Your task to perform on an android device: empty trash in google photos Image 0: 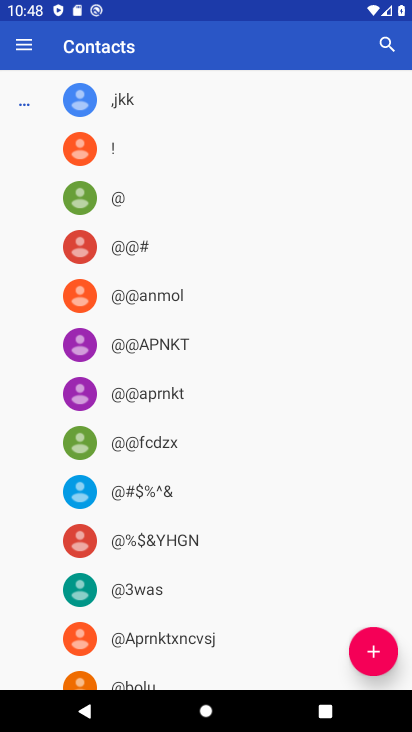
Step 0: press home button
Your task to perform on an android device: empty trash in google photos Image 1: 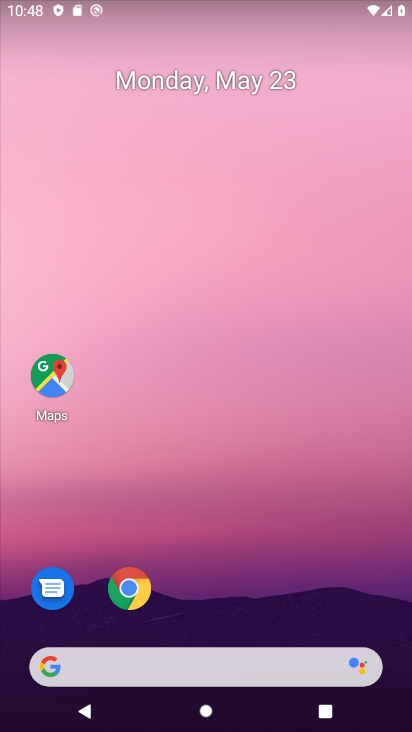
Step 1: drag from (178, 582) to (256, 25)
Your task to perform on an android device: empty trash in google photos Image 2: 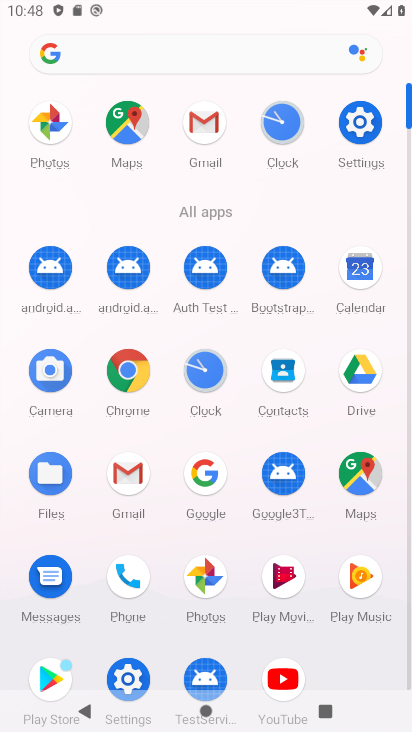
Step 2: click (133, 478)
Your task to perform on an android device: empty trash in google photos Image 3: 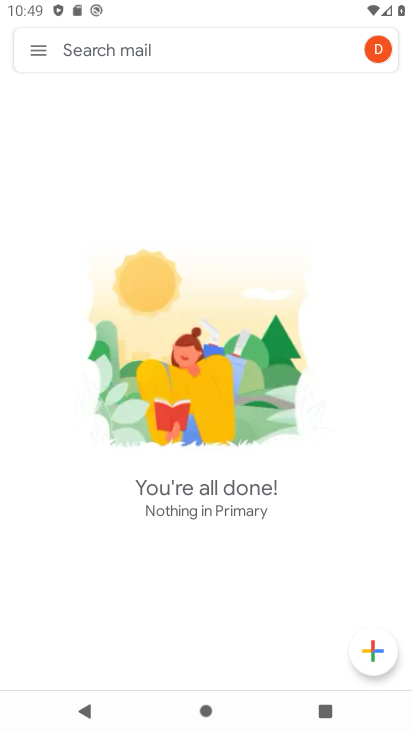
Step 3: click (20, 44)
Your task to perform on an android device: empty trash in google photos Image 4: 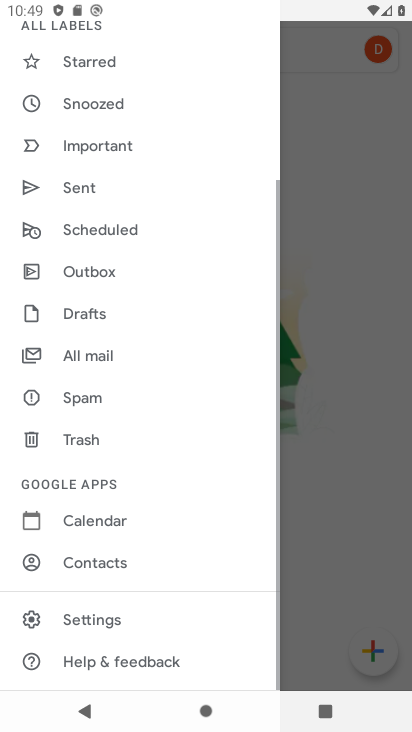
Step 4: click (136, 584)
Your task to perform on an android device: empty trash in google photos Image 5: 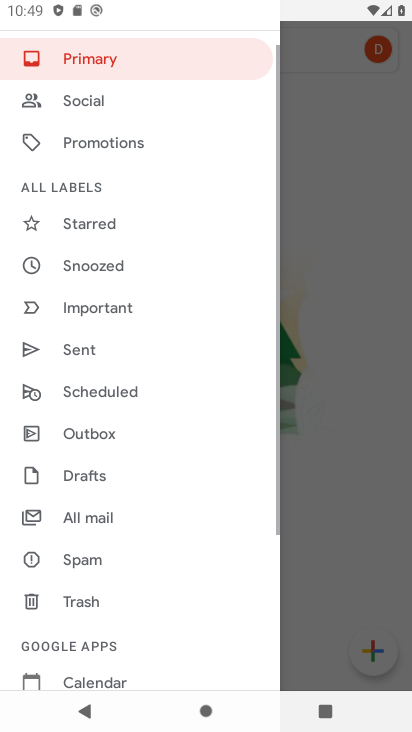
Step 5: click (103, 612)
Your task to perform on an android device: empty trash in google photos Image 6: 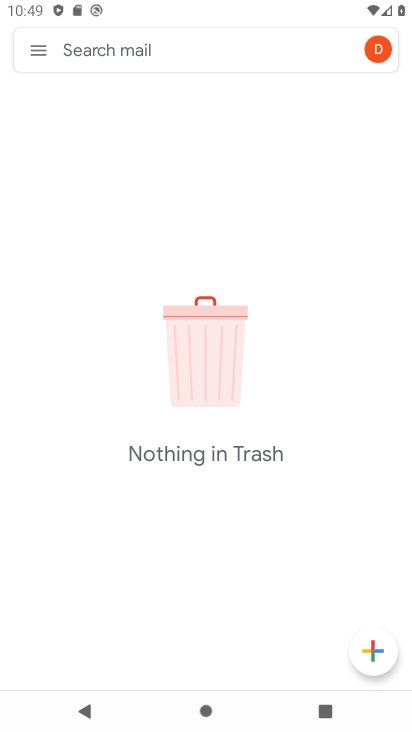
Step 6: task complete